Your task to perform on an android device: install app "Roku - Official Remote Control" Image 0: 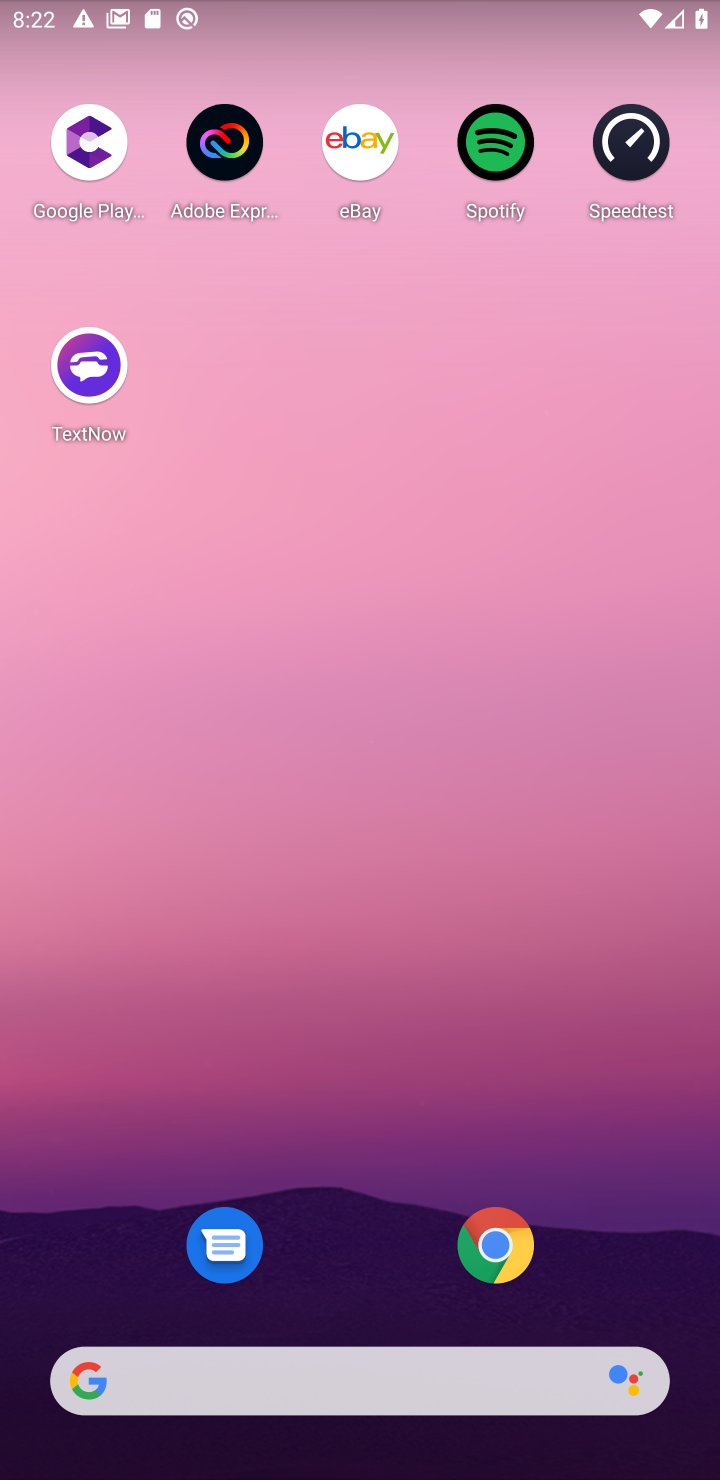
Step 0: drag from (404, 1238) to (213, 161)
Your task to perform on an android device: install app "Roku - Official Remote Control" Image 1: 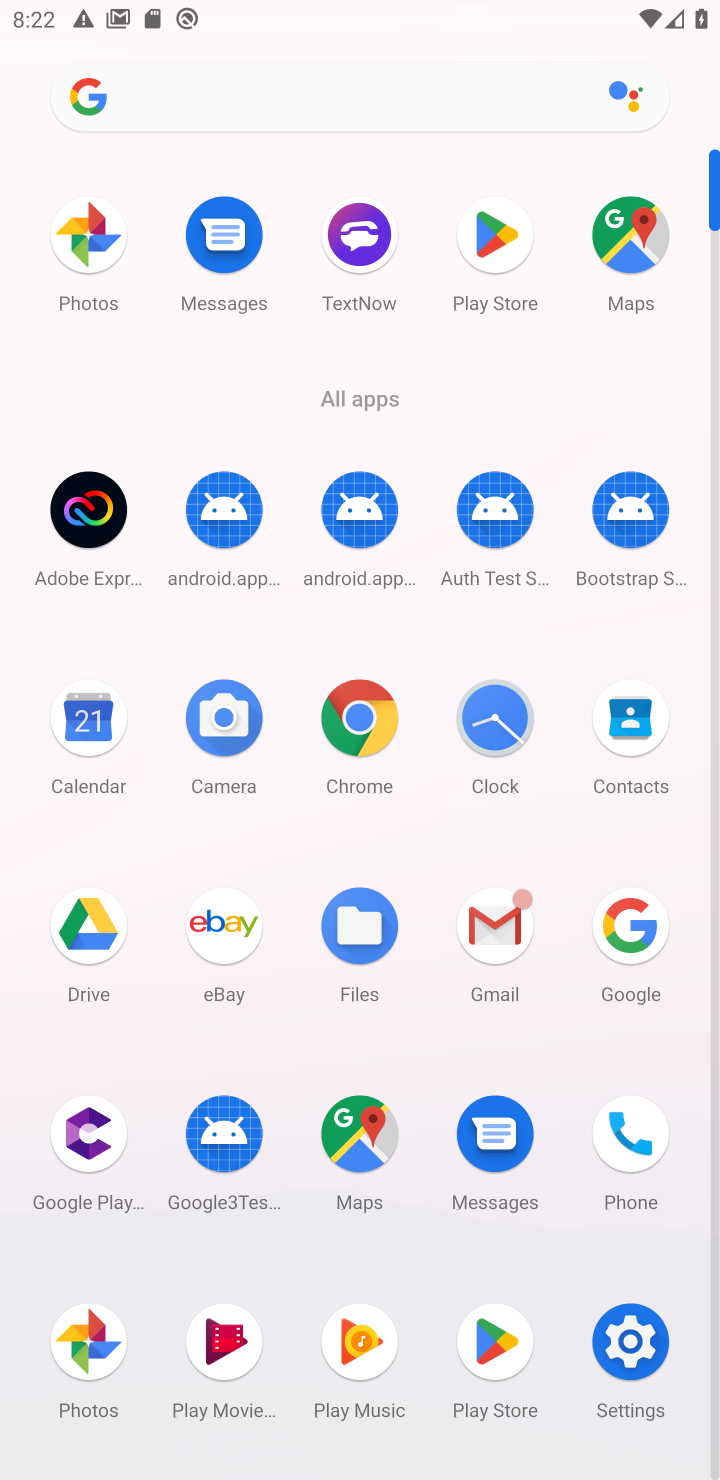
Step 1: click (477, 1338)
Your task to perform on an android device: install app "Roku - Official Remote Control" Image 2: 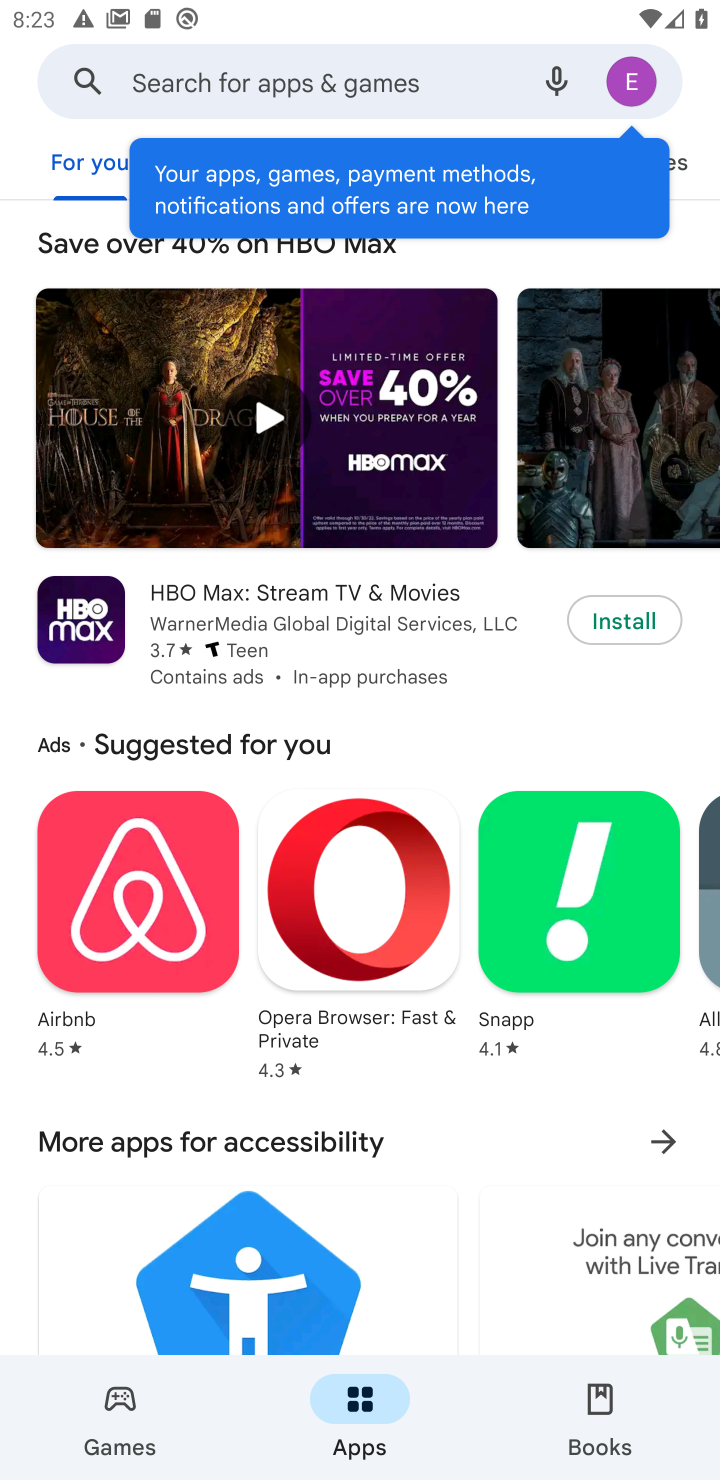
Step 2: click (213, 59)
Your task to perform on an android device: install app "Roku - Official Remote Control" Image 3: 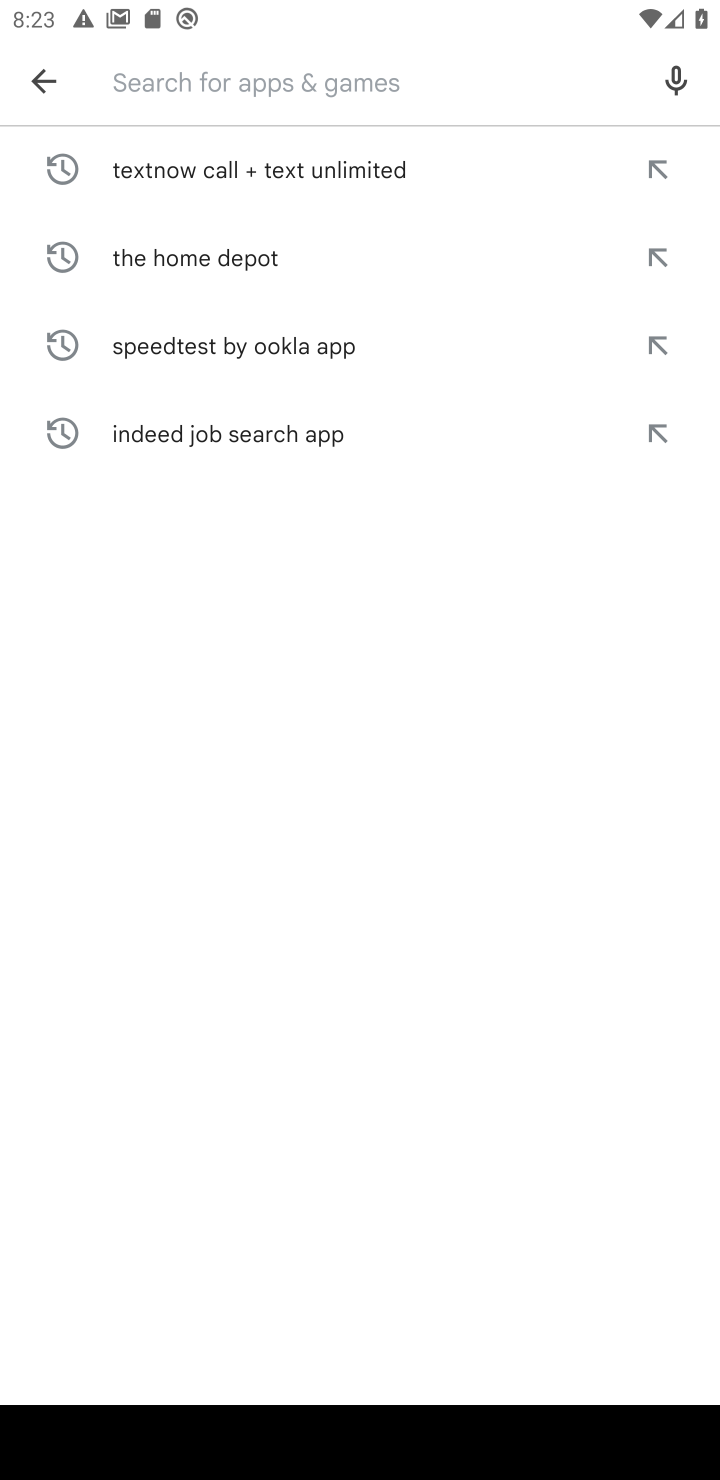
Step 3: type "Roku - Official Remote Control"
Your task to perform on an android device: install app "Roku - Official Remote Control" Image 4: 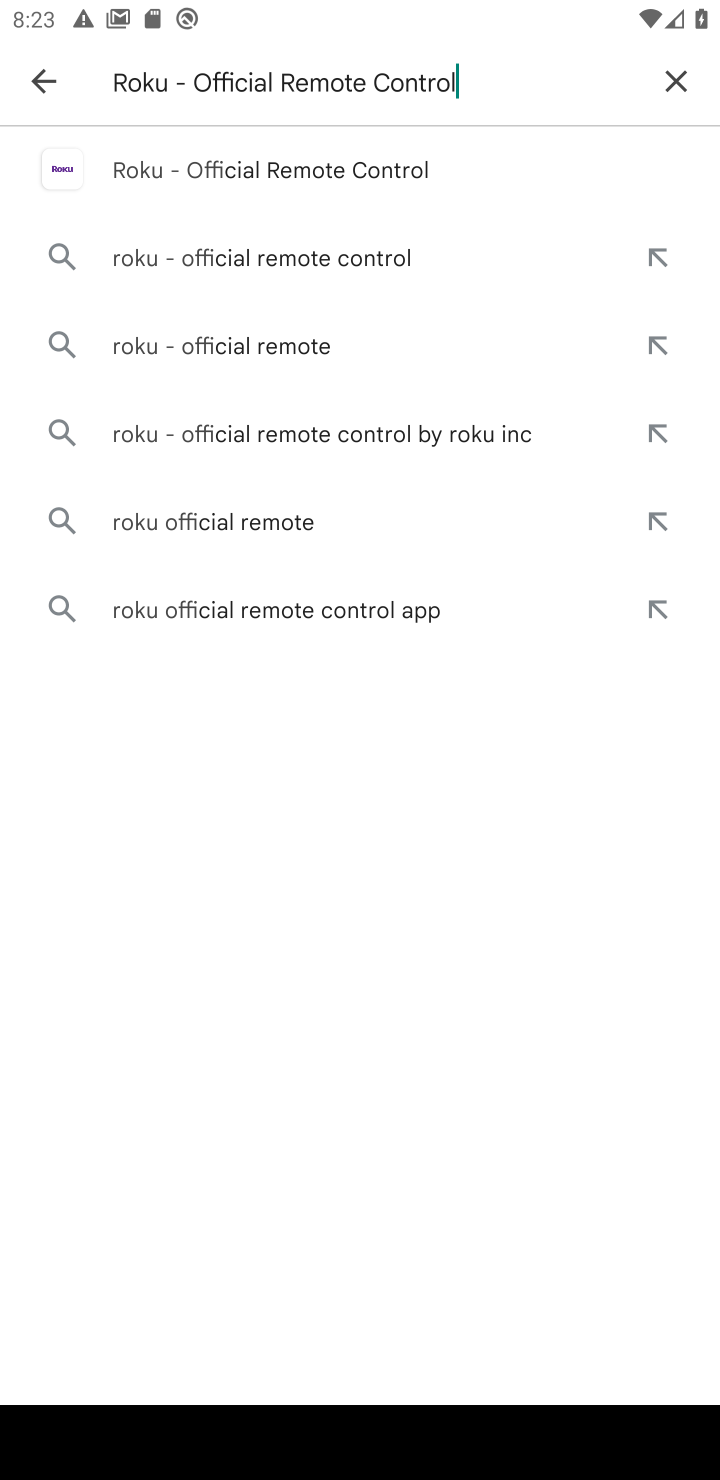
Step 4: type ""
Your task to perform on an android device: install app "Roku - Official Remote Control" Image 5: 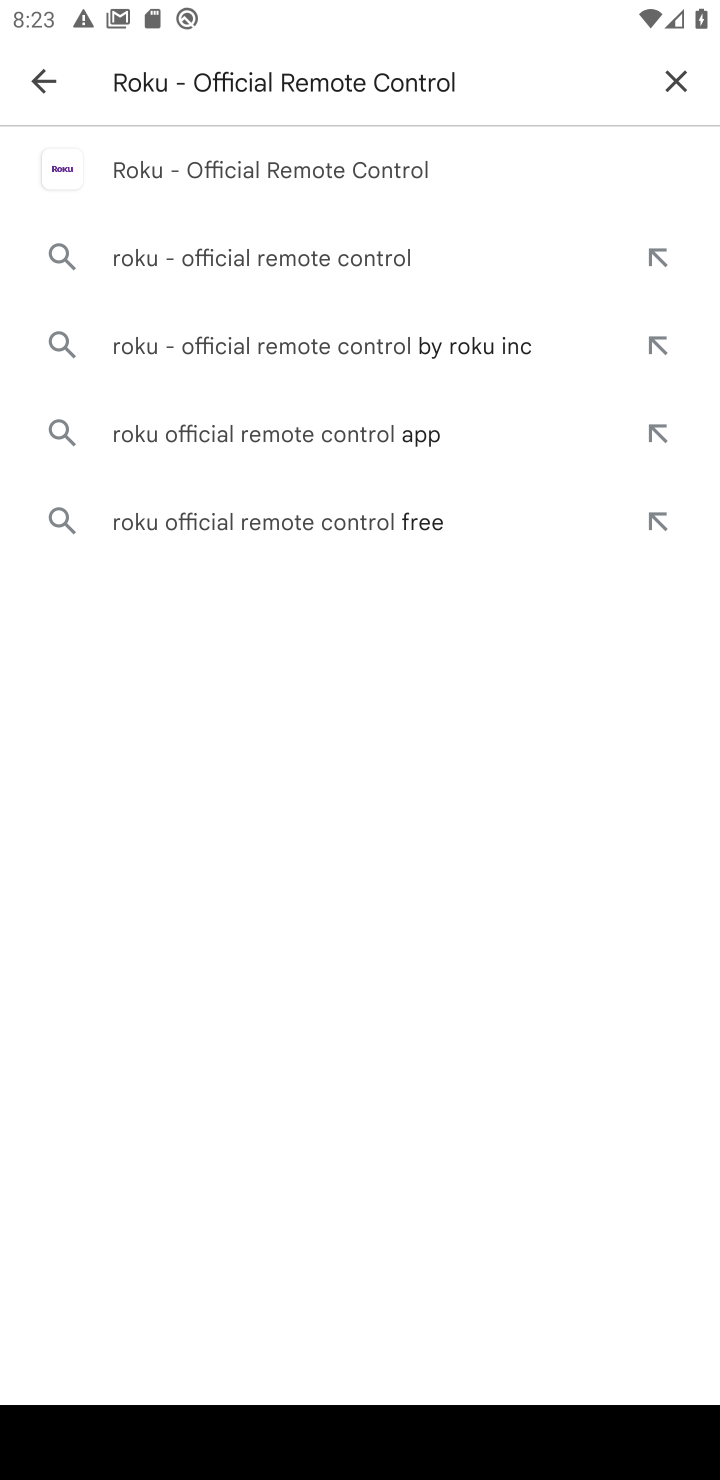
Step 5: click (295, 190)
Your task to perform on an android device: install app "Roku - Official Remote Control" Image 6: 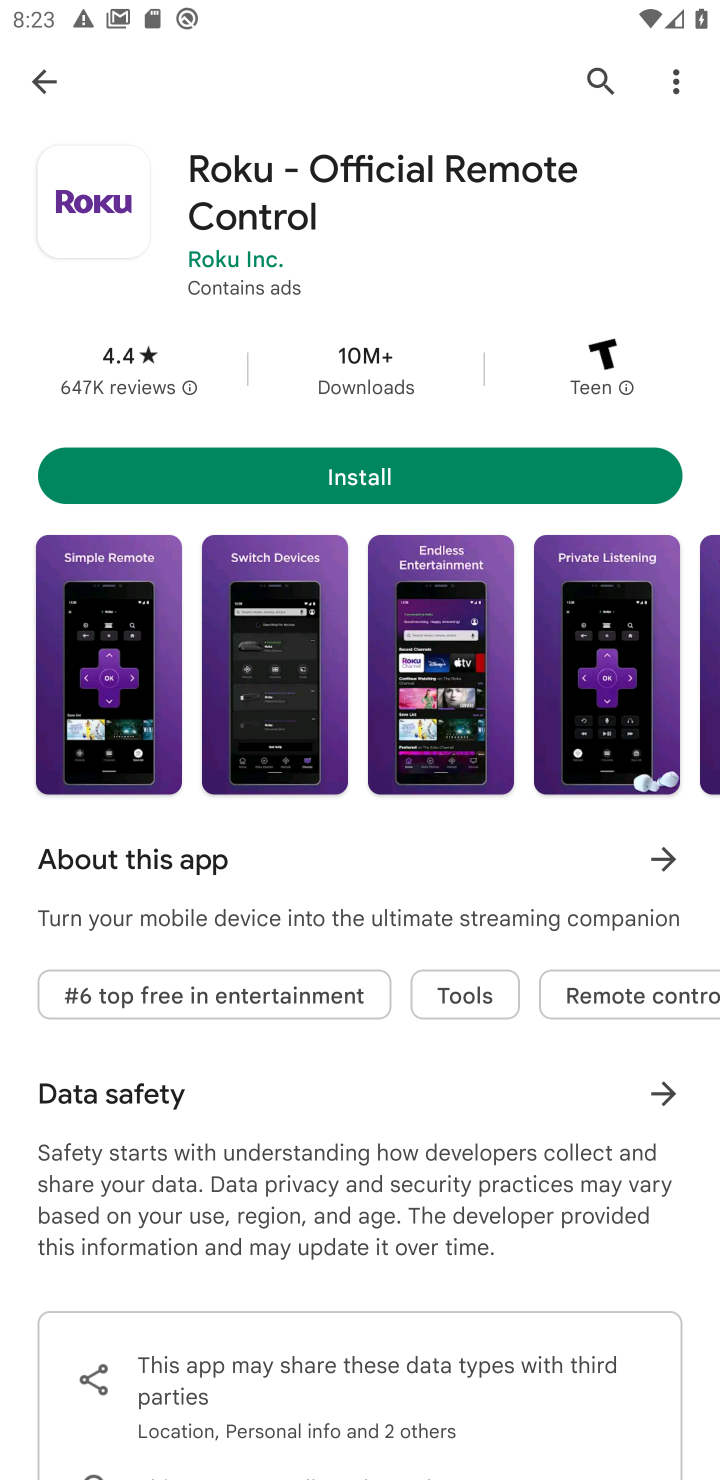
Step 6: click (430, 480)
Your task to perform on an android device: install app "Roku - Official Remote Control" Image 7: 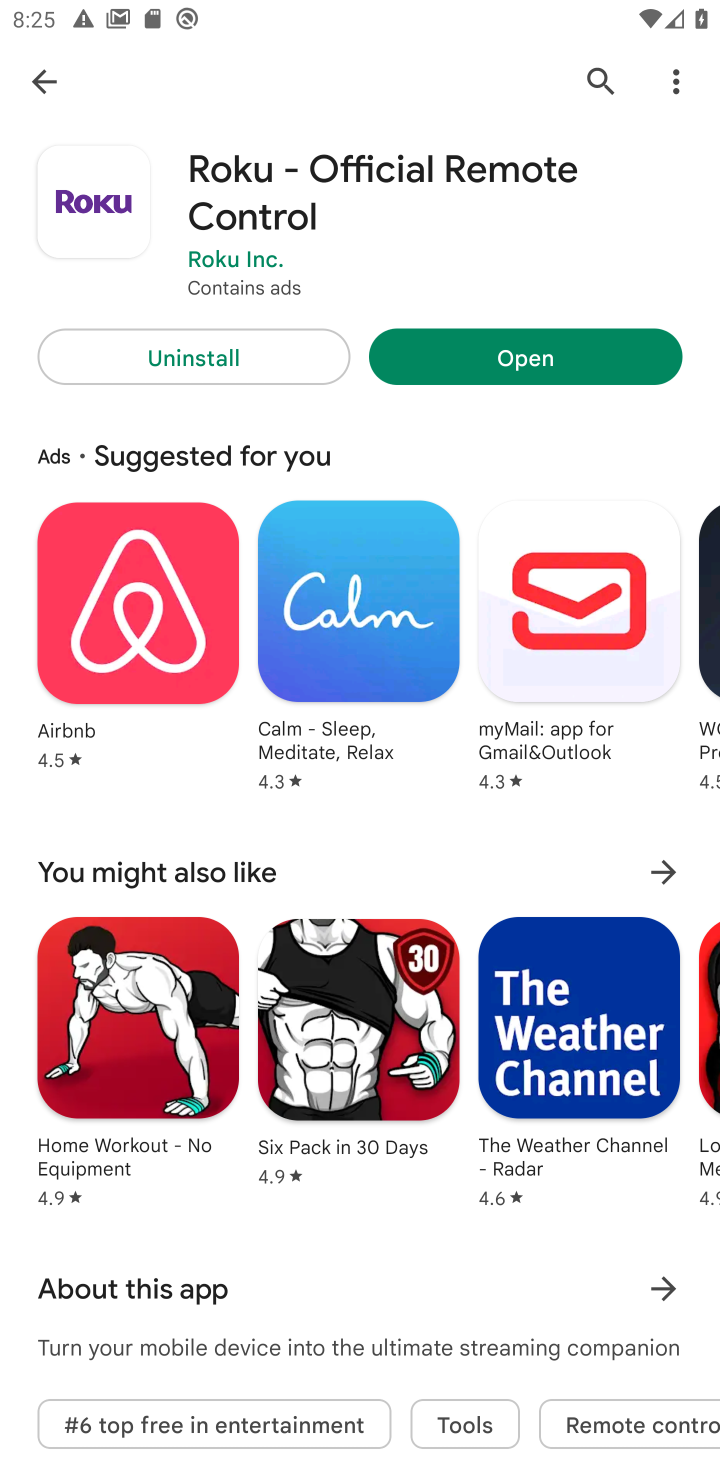
Step 7: click (480, 346)
Your task to perform on an android device: install app "Roku - Official Remote Control" Image 8: 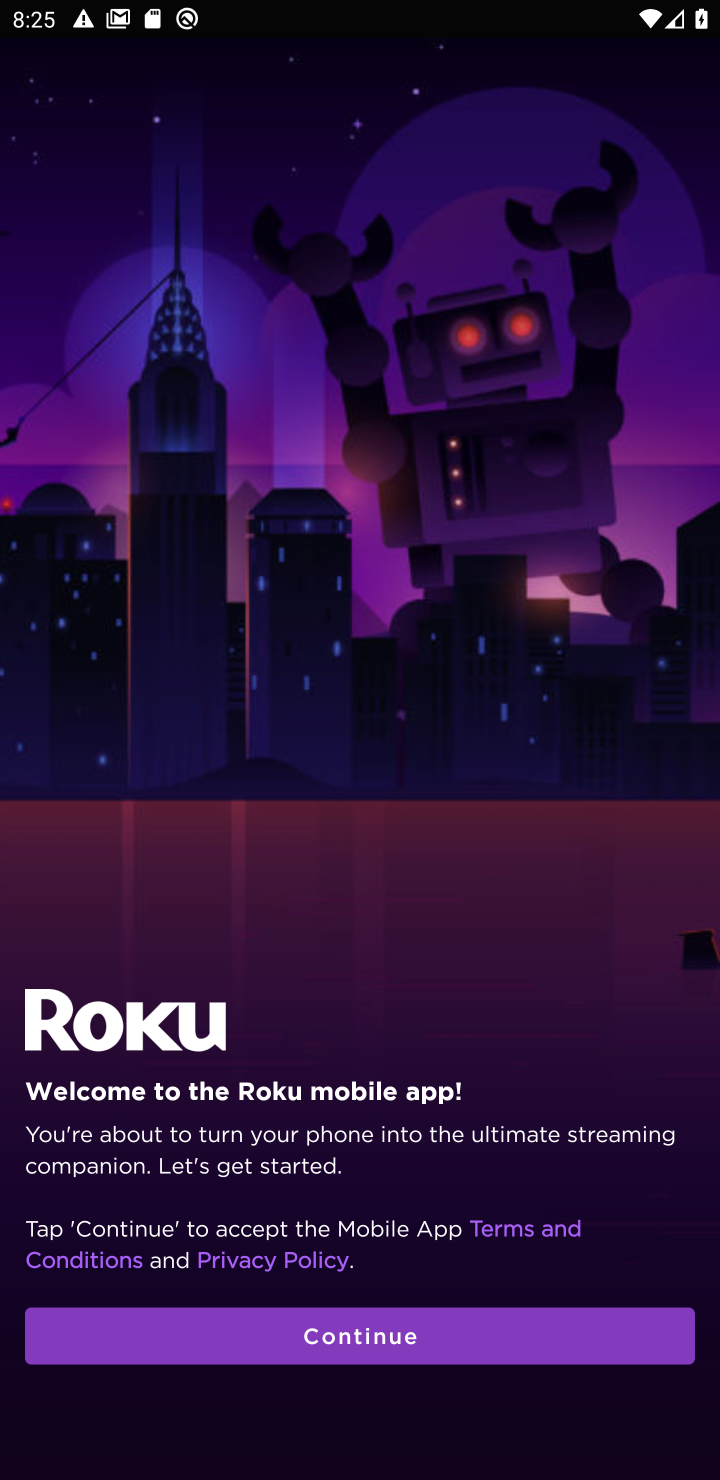
Step 8: click (422, 1327)
Your task to perform on an android device: install app "Roku - Official Remote Control" Image 9: 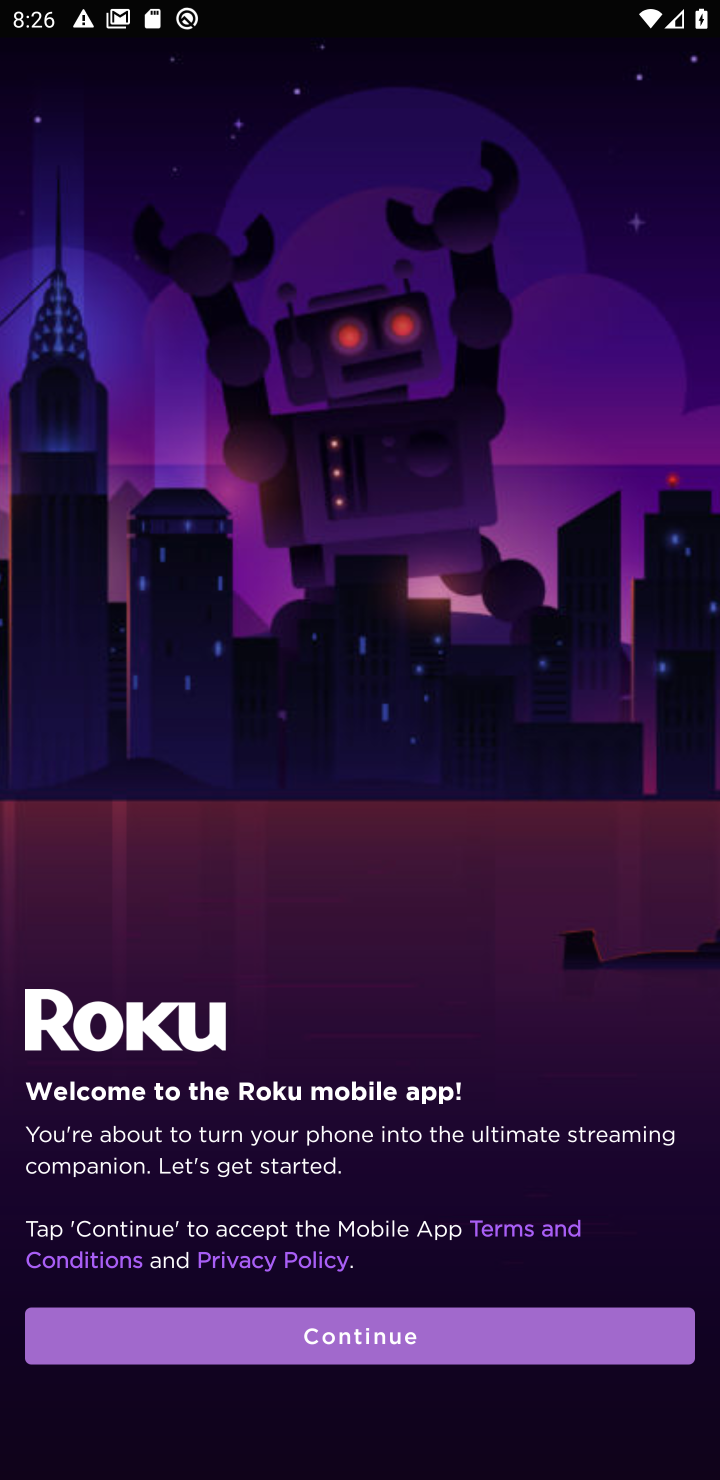
Step 9: task complete